Your task to perform on an android device: open device folders in google photos Image 0: 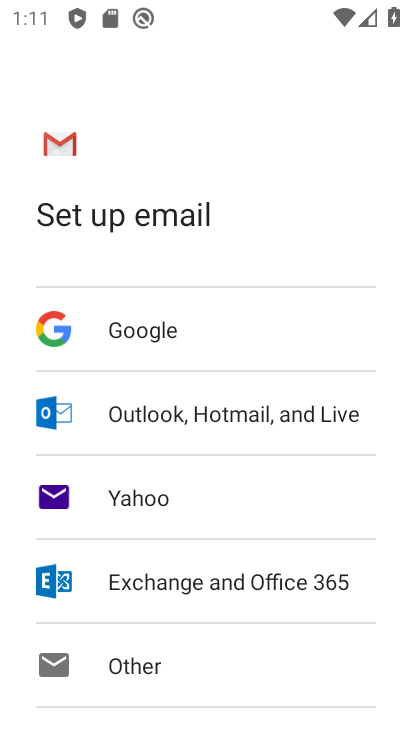
Step 0: press home button
Your task to perform on an android device: open device folders in google photos Image 1: 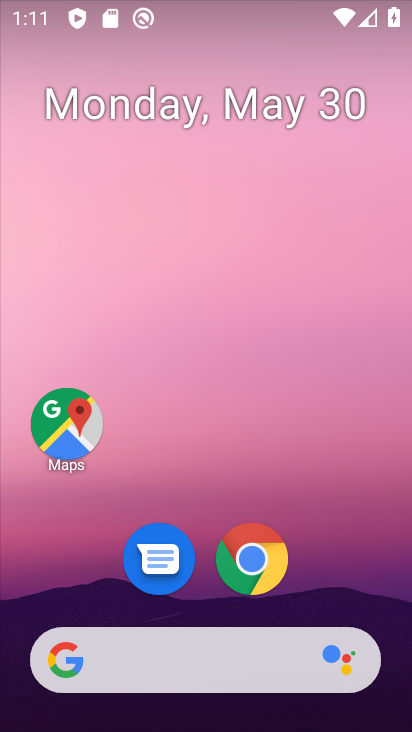
Step 1: drag from (214, 560) to (273, 30)
Your task to perform on an android device: open device folders in google photos Image 2: 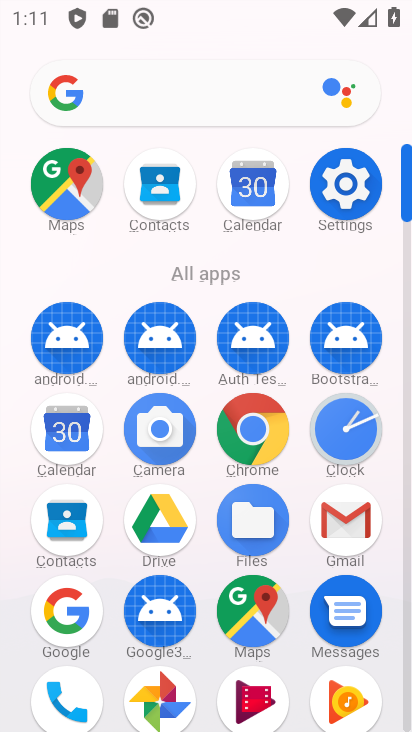
Step 2: click (154, 696)
Your task to perform on an android device: open device folders in google photos Image 3: 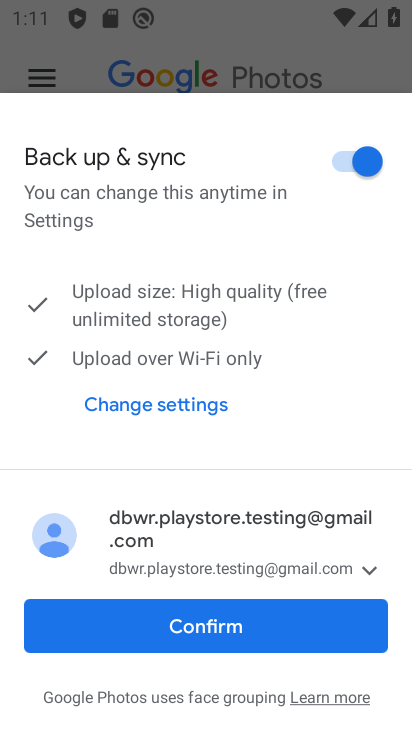
Step 3: click (149, 642)
Your task to perform on an android device: open device folders in google photos Image 4: 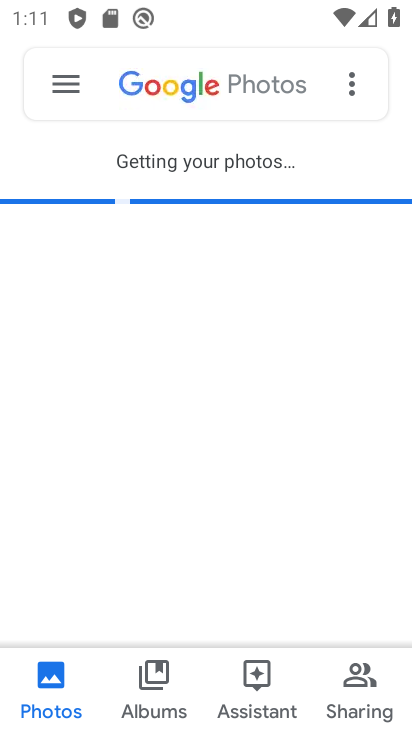
Step 4: click (36, 80)
Your task to perform on an android device: open device folders in google photos Image 5: 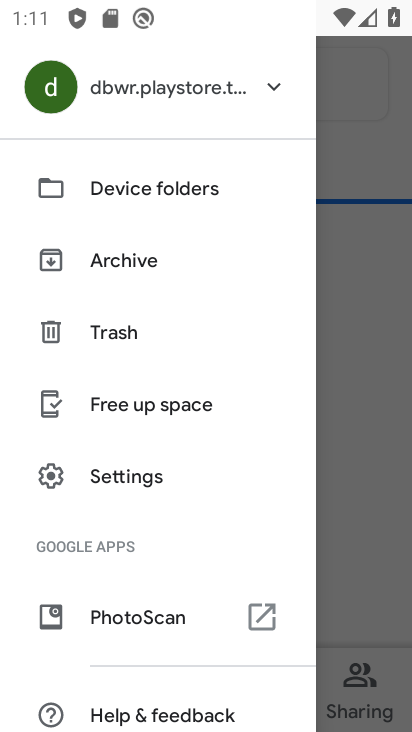
Step 5: click (153, 194)
Your task to perform on an android device: open device folders in google photos Image 6: 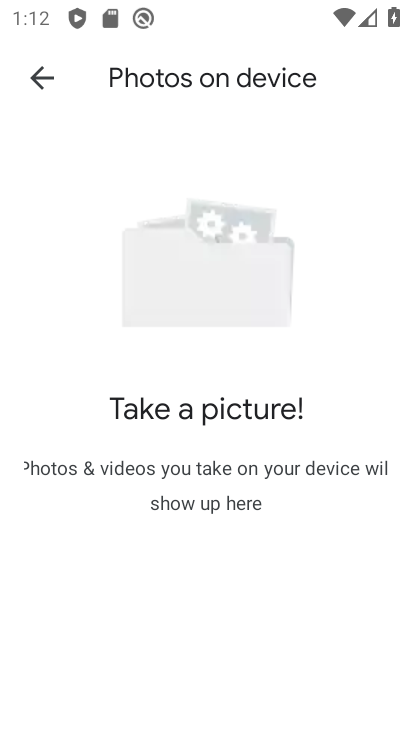
Step 6: task complete